Your task to perform on an android device: Search for a new hair product Image 0: 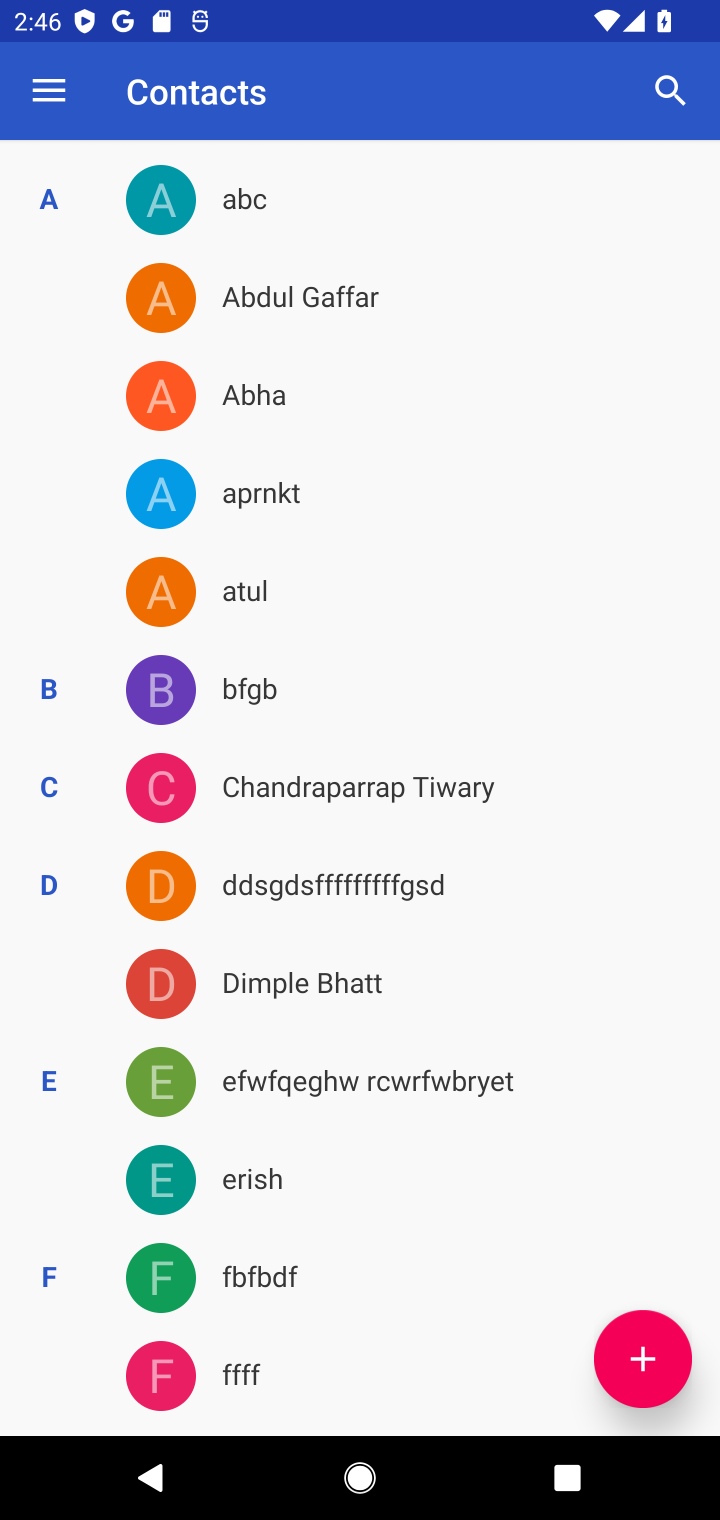
Step 0: press home button
Your task to perform on an android device: Search for a new hair product Image 1: 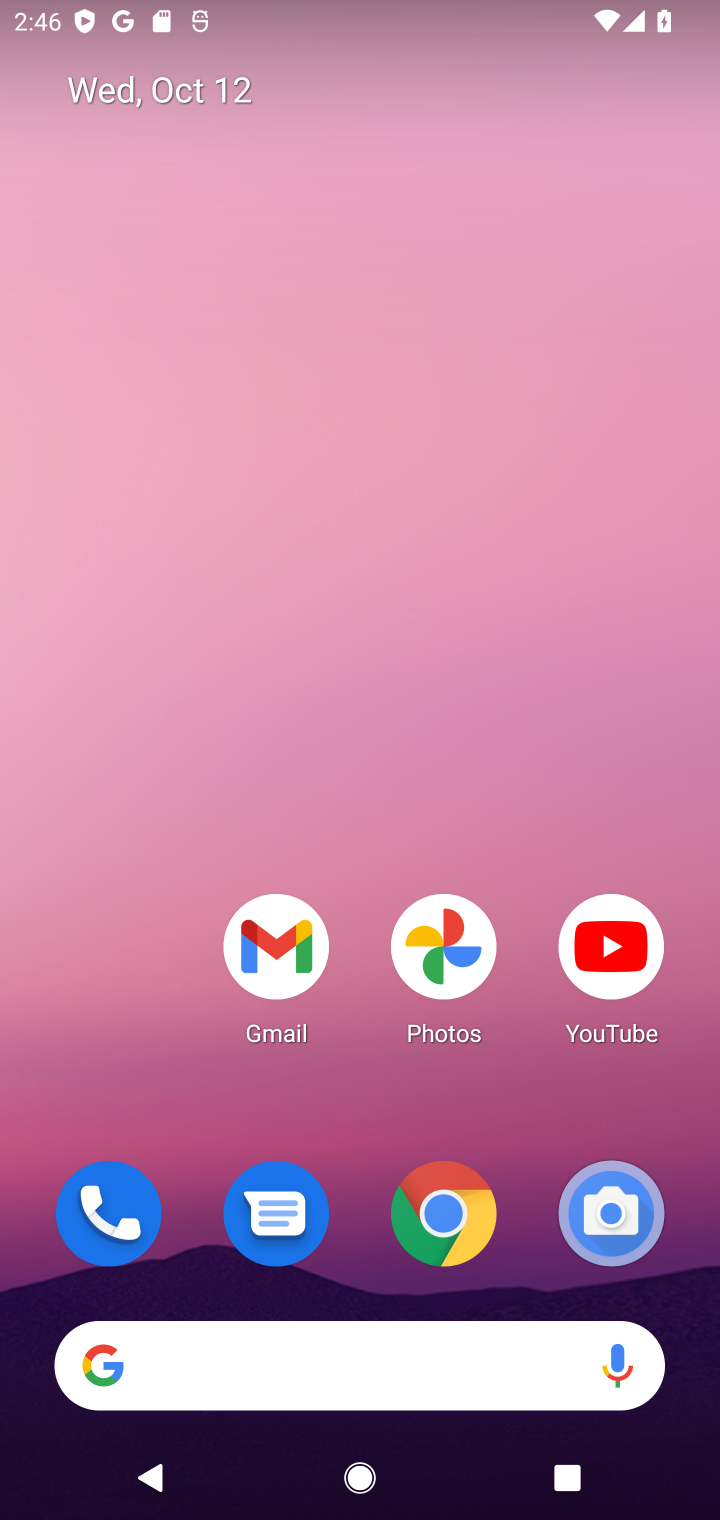
Step 1: click (245, 1364)
Your task to perform on an android device: Search for a new hair product Image 2: 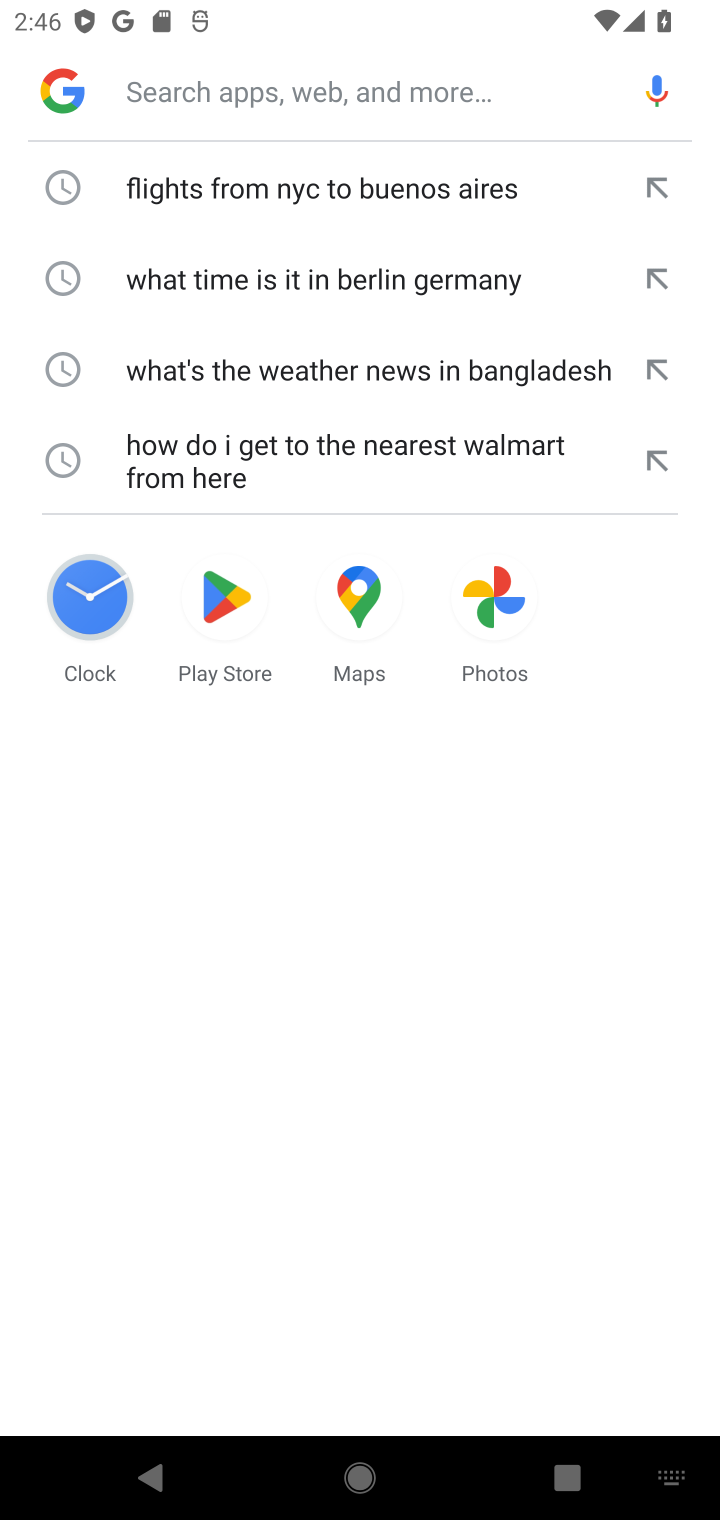
Step 2: click (328, 85)
Your task to perform on an android device: Search for a new hair product Image 3: 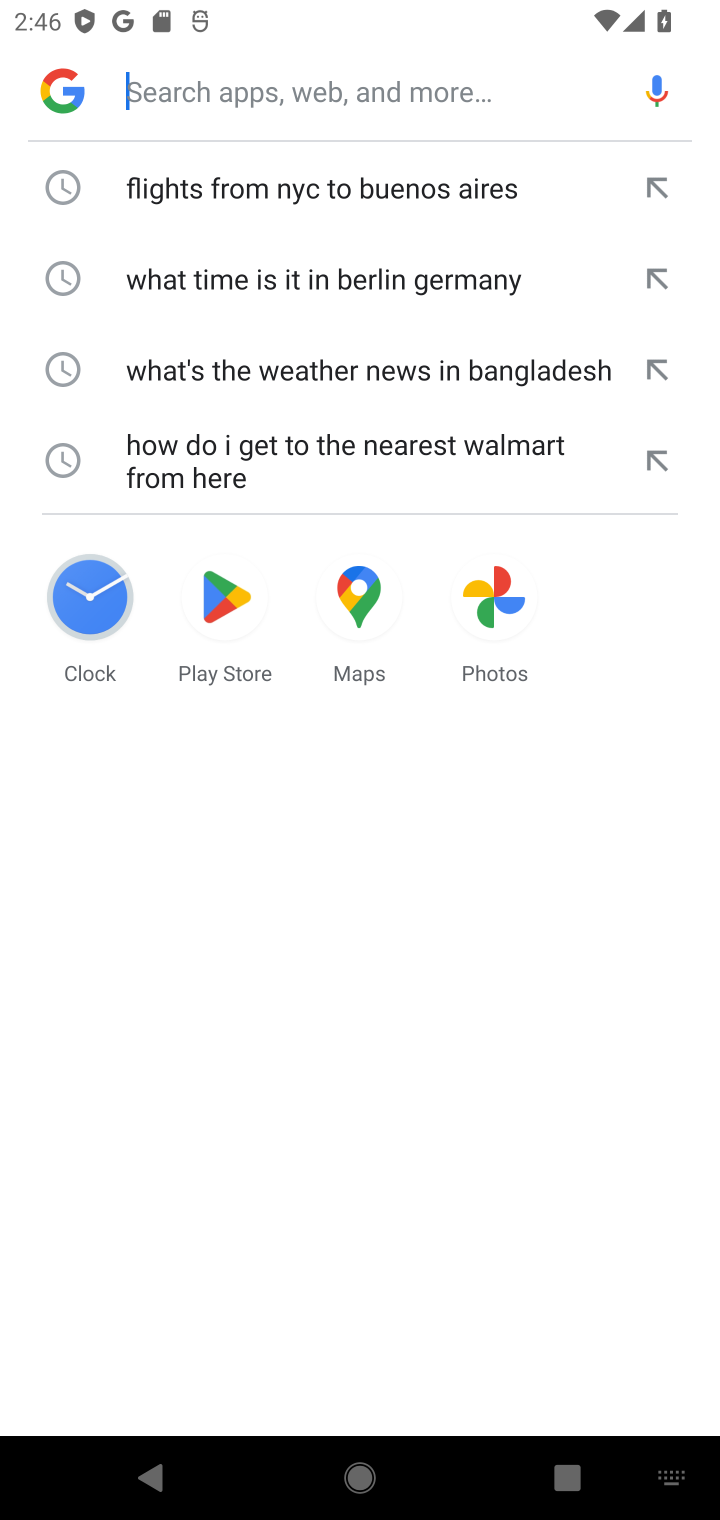
Step 3: type "new hair product"
Your task to perform on an android device: Search for a new hair product Image 4: 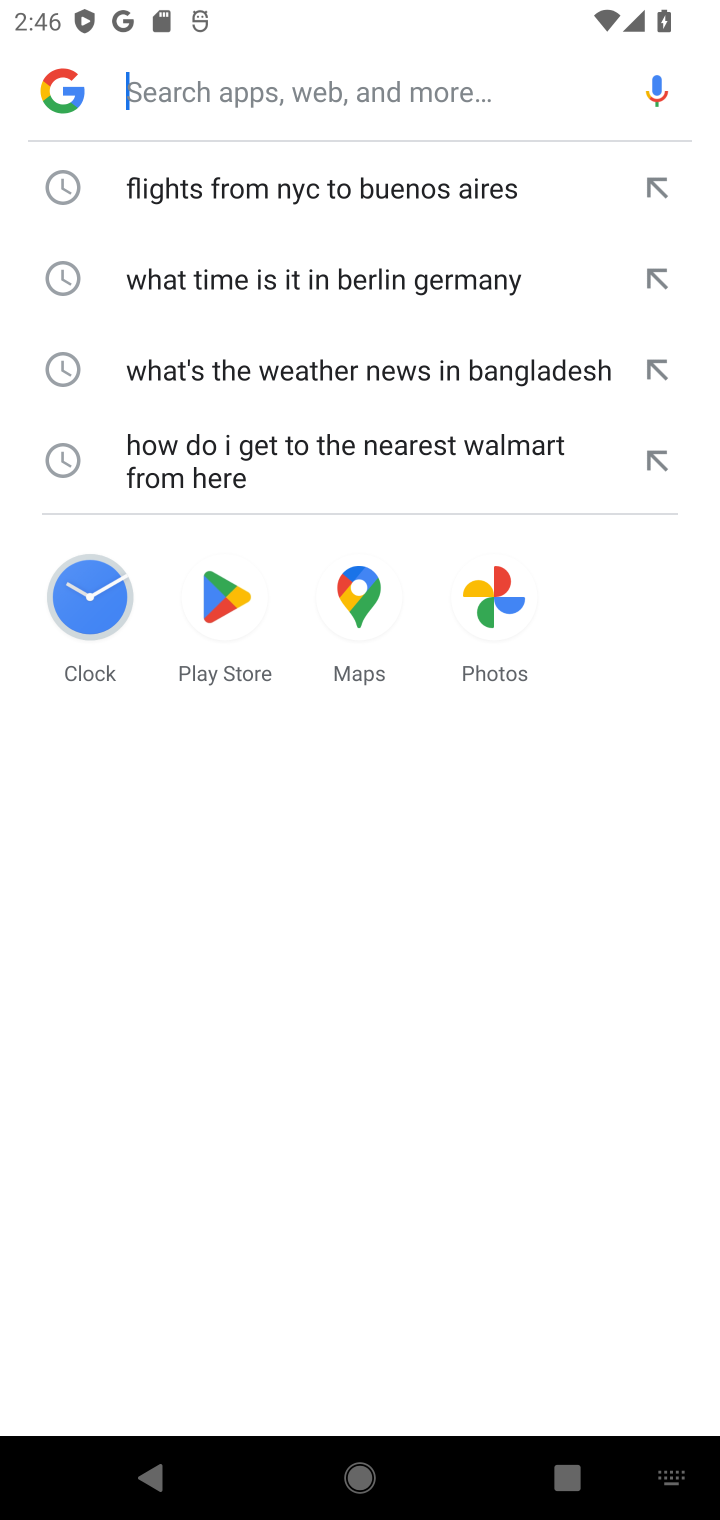
Step 4: click (200, 1125)
Your task to perform on an android device: Search for a new hair product Image 5: 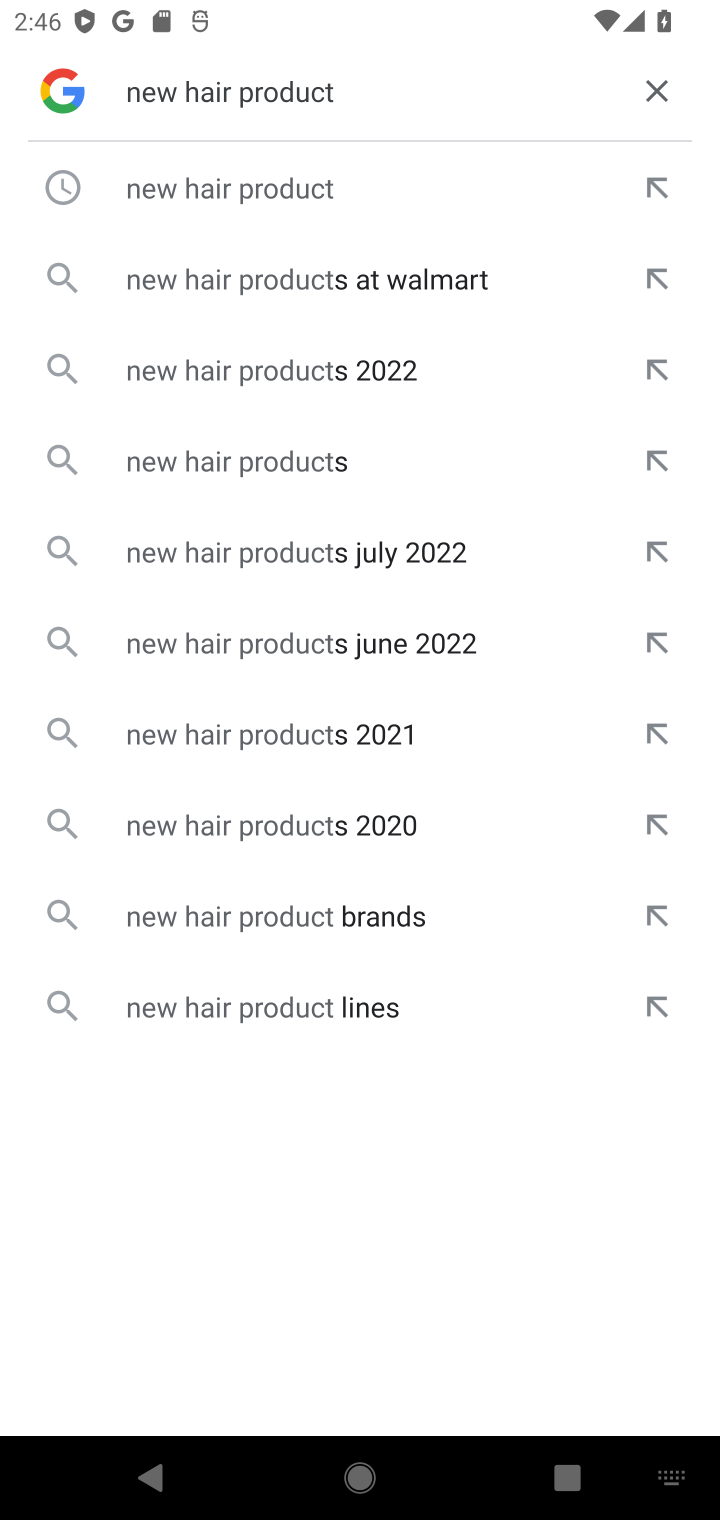
Step 5: click (288, 189)
Your task to perform on an android device: Search for a new hair product Image 6: 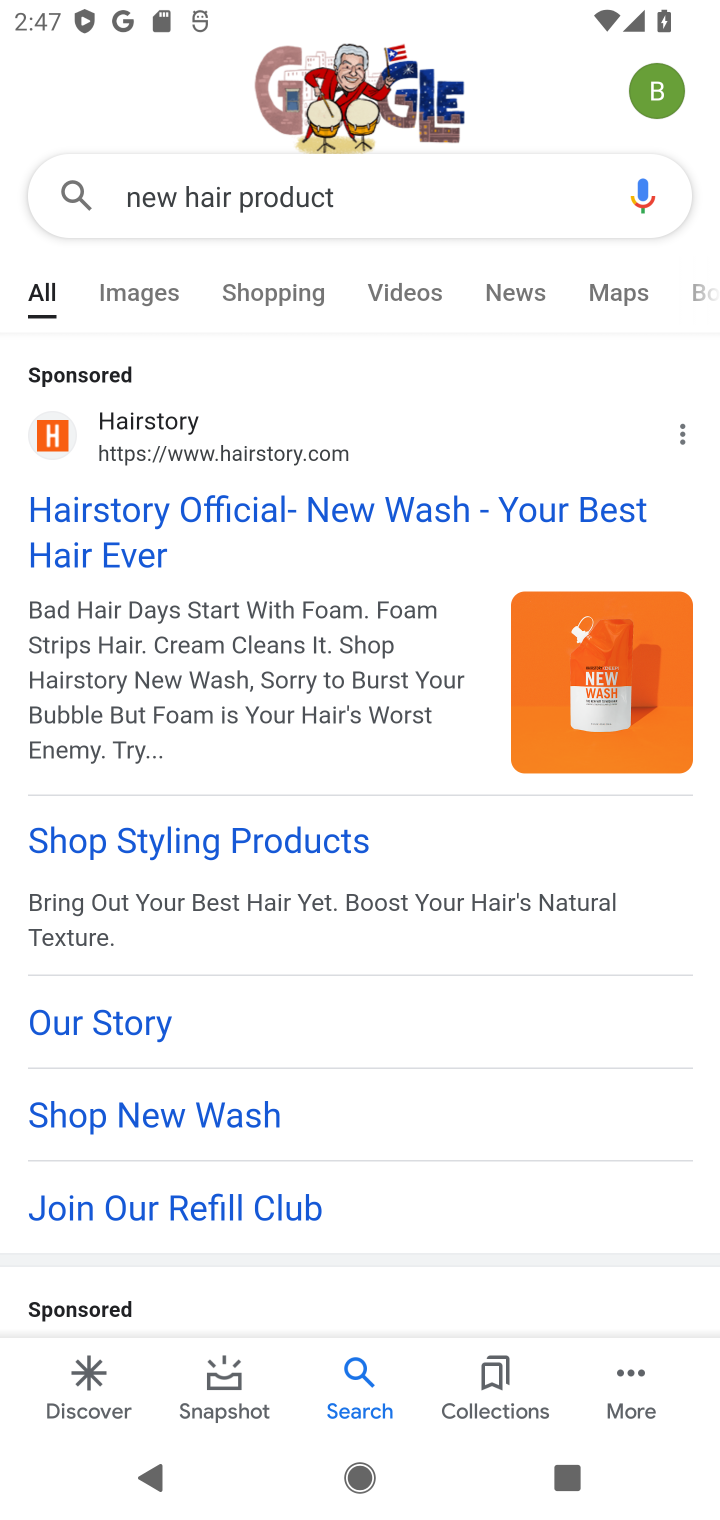
Step 6: task complete